Your task to perform on an android device: turn on the 24-hour format for clock Image 0: 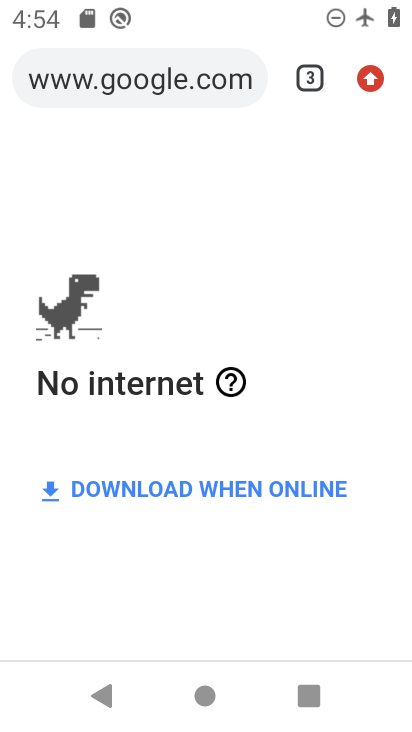
Step 0: press home button
Your task to perform on an android device: turn on the 24-hour format for clock Image 1: 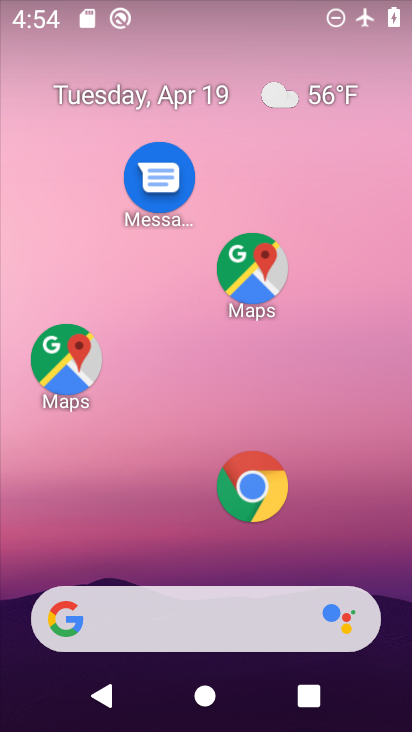
Step 1: drag from (304, 559) to (382, 120)
Your task to perform on an android device: turn on the 24-hour format for clock Image 2: 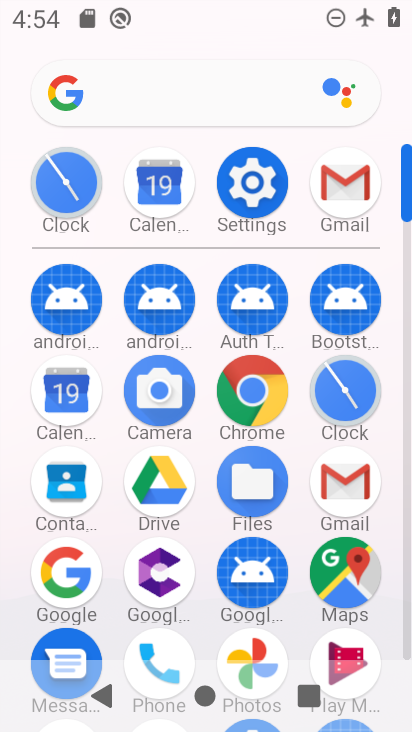
Step 2: click (350, 400)
Your task to perform on an android device: turn on the 24-hour format for clock Image 3: 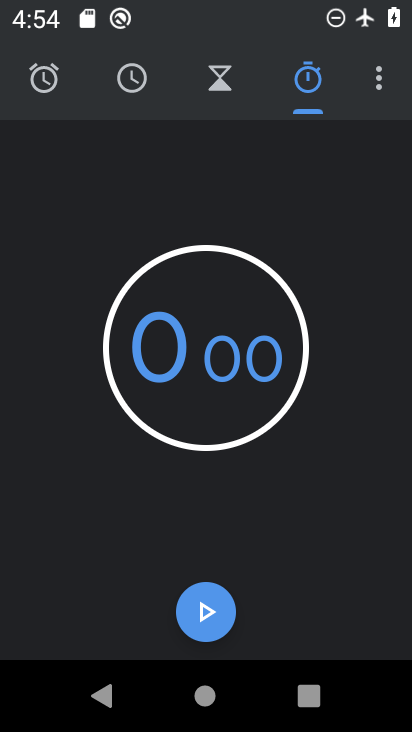
Step 3: click (387, 75)
Your task to perform on an android device: turn on the 24-hour format for clock Image 4: 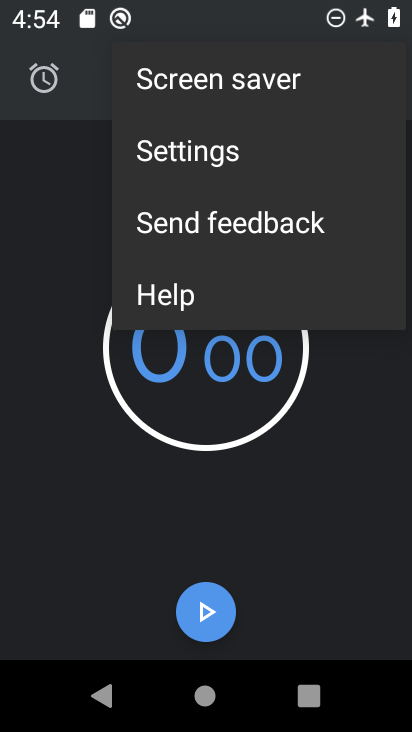
Step 4: click (251, 172)
Your task to perform on an android device: turn on the 24-hour format for clock Image 5: 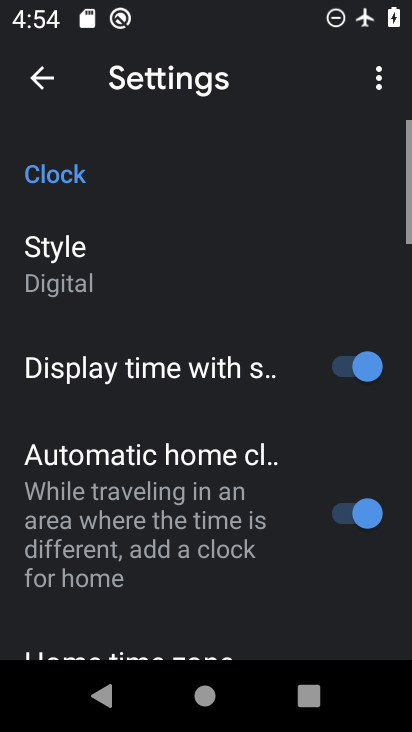
Step 5: drag from (264, 257) to (295, 165)
Your task to perform on an android device: turn on the 24-hour format for clock Image 6: 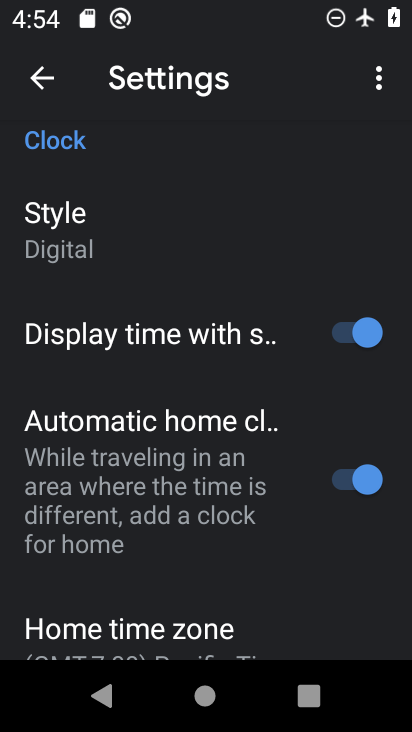
Step 6: drag from (239, 493) to (285, 182)
Your task to perform on an android device: turn on the 24-hour format for clock Image 7: 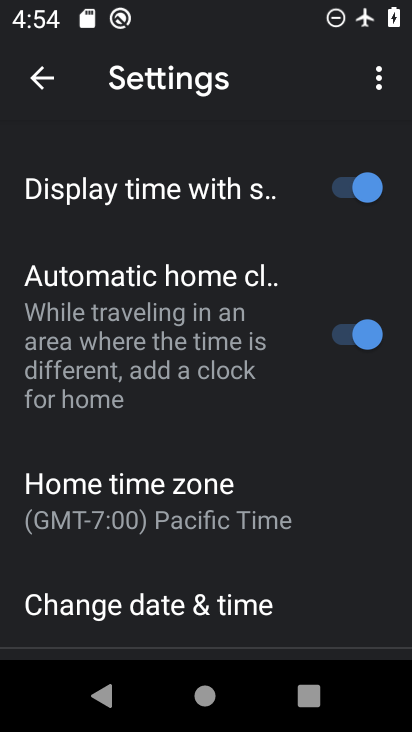
Step 7: drag from (229, 521) to (274, 270)
Your task to perform on an android device: turn on the 24-hour format for clock Image 8: 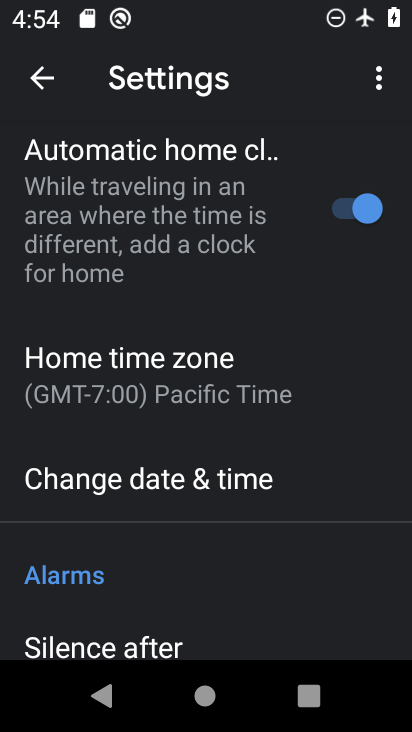
Step 8: click (249, 474)
Your task to perform on an android device: turn on the 24-hour format for clock Image 9: 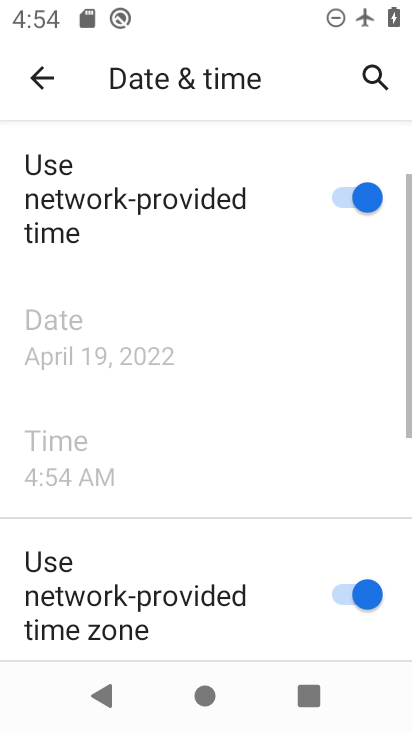
Step 9: drag from (229, 575) to (290, 197)
Your task to perform on an android device: turn on the 24-hour format for clock Image 10: 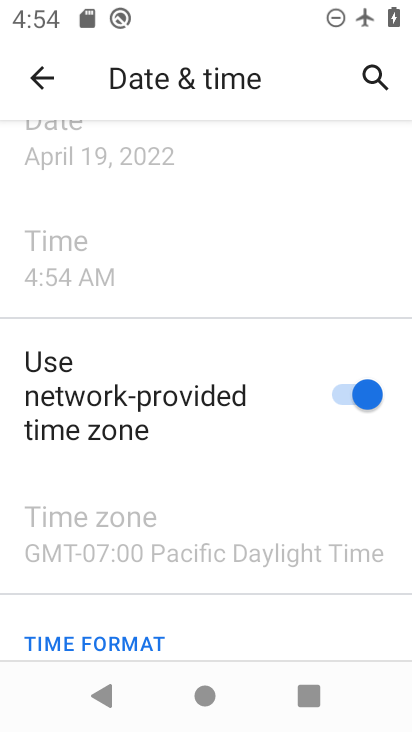
Step 10: drag from (293, 518) to (367, 64)
Your task to perform on an android device: turn on the 24-hour format for clock Image 11: 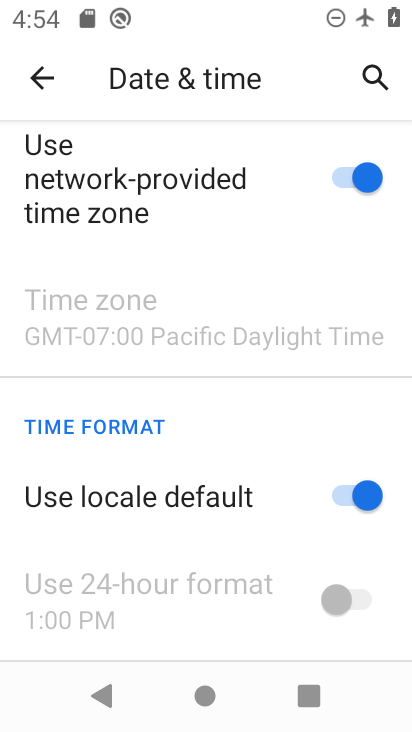
Step 11: drag from (338, 468) to (346, 11)
Your task to perform on an android device: turn on the 24-hour format for clock Image 12: 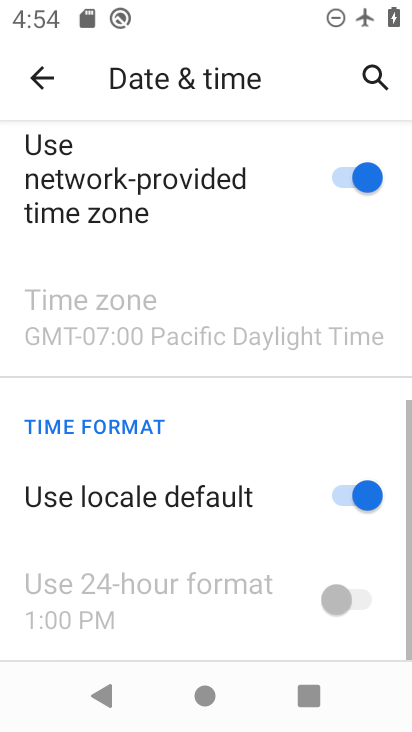
Step 12: drag from (270, 522) to (289, 81)
Your task to perform on an android device: turn on the 24-hour format for clock Image 13: 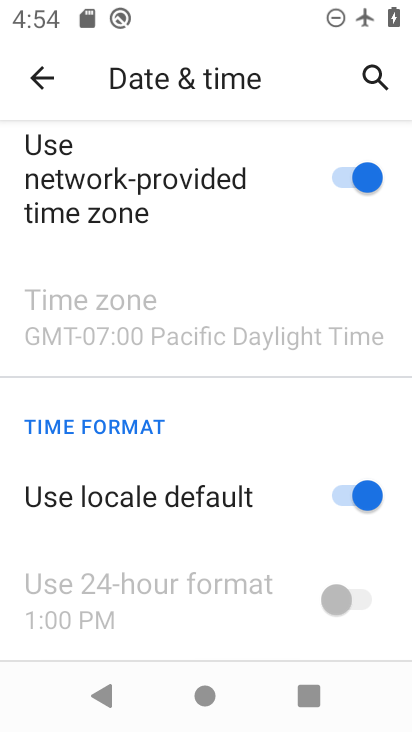
Step 13: click (373, 497)
Your task to perform on an android device: turn on the 24-hour format for clock Image 14: 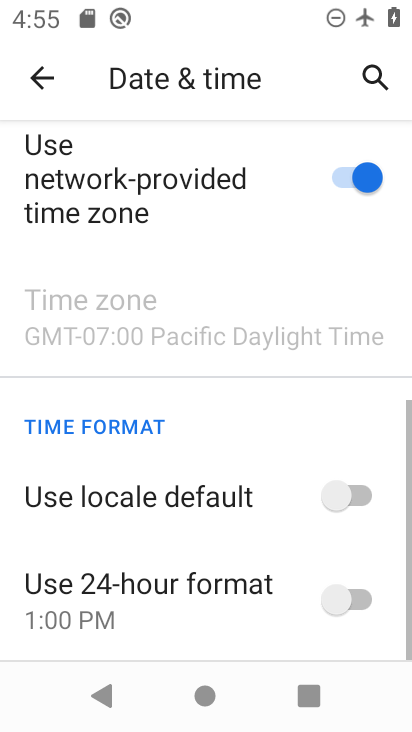
Step 14: click (318, 632)
Your task to perform on an android device: turn on the 24-hour format for clock Image 15: 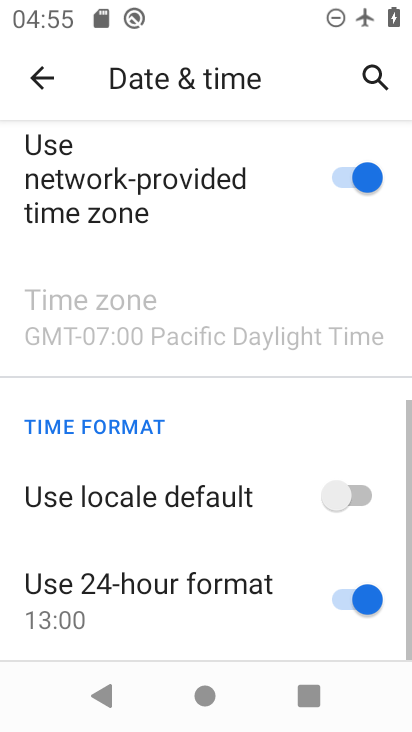
Step 15: task complete